Your task to perform on an android device: Open Yahoo.com Image 0: 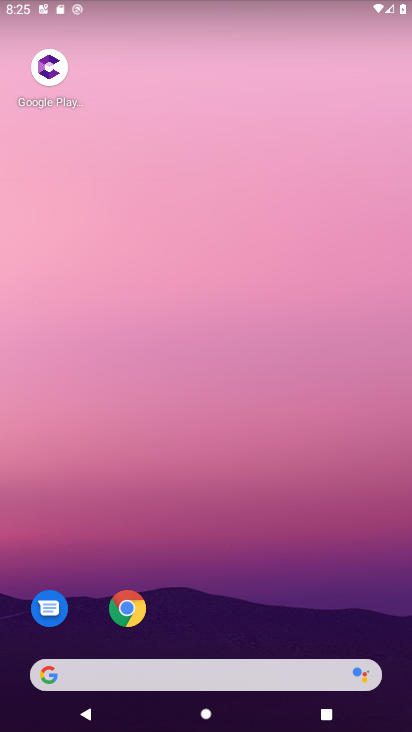
Step 0: drag from (364, 613) to (340, 123)
Your task to perform on an android device: Open Yahoo.com Image 1: 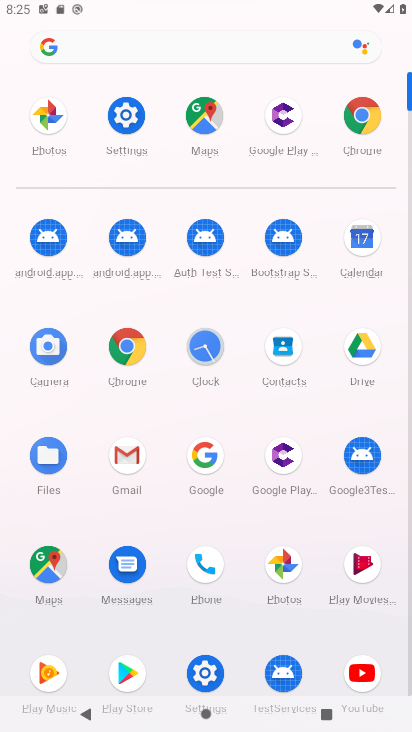
Step 1: click (120, 340)
Your task to perform on an android device: Open Yahoo.com Image 2: 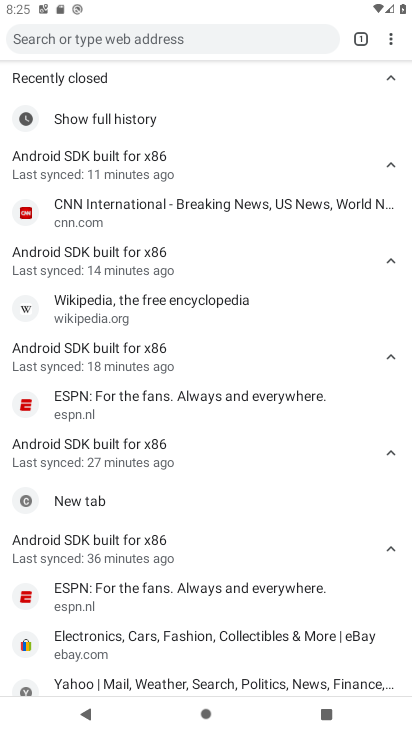
Step 2: press back button
Your task to perform on an android device: Open Yahoo.com Image 3: 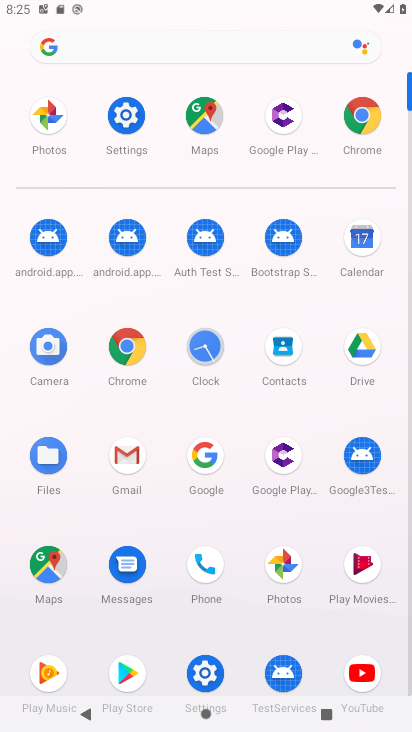
Step 3: click (127, 355)
Your task to perform on an android device: Open Yahoo.com Image 4: 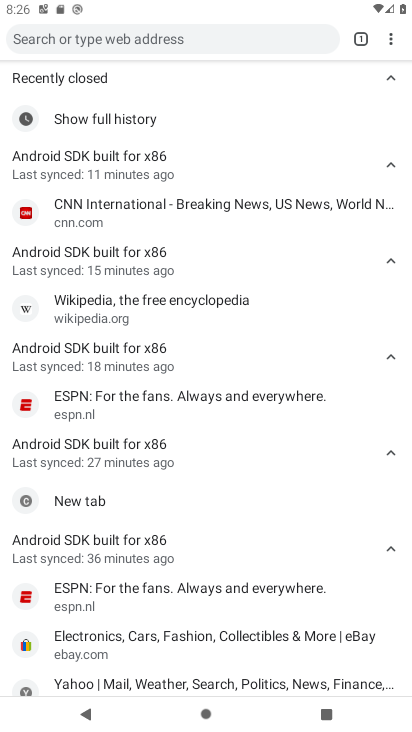
Step 4: click (246, 35)
Your task to perform on an android device: Open Yahoo.com Image 5: 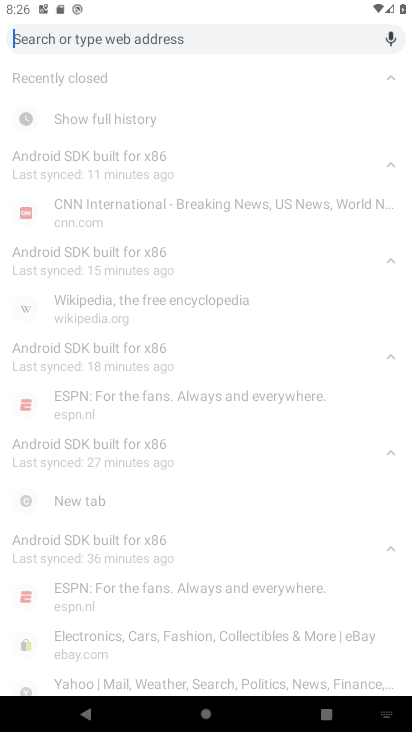
Step 5: type "yahoo.com"
Your task to perform on an android device: Open Yahoo.com Image 6: 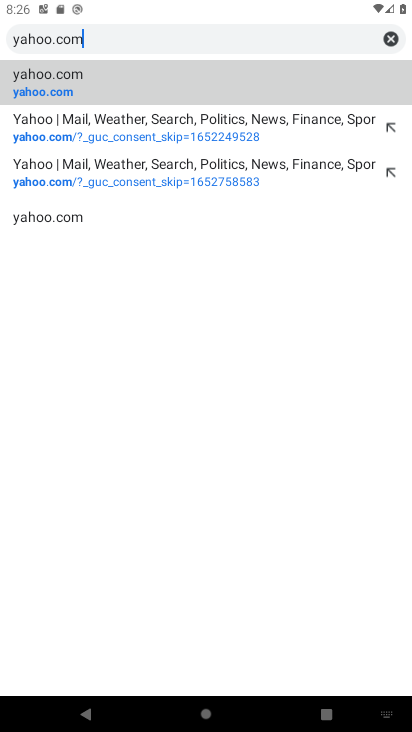
Step 6: click (166, 72)
Your task to perform on an android device: Open Yahoo.com Image 7: 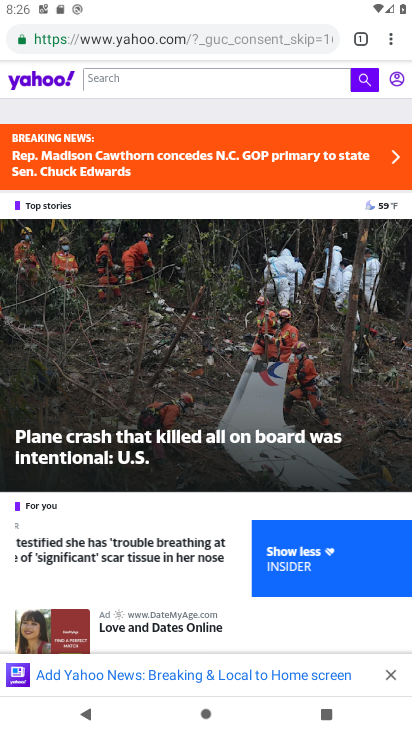
Step 7: task complete